Your task to perform on an android device: Set the phone to "Do not disturb". Image 0: 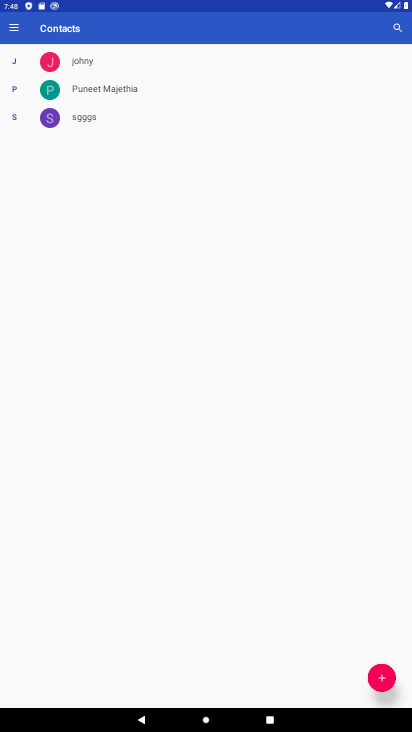
Step 0: press home button
Your task to perform on an android device: Set the phone to "Do not disturb". Image 1: 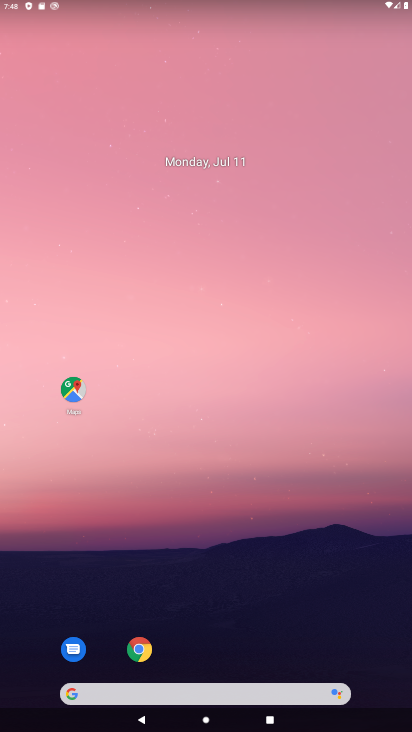
Step 1: drag from (214, 683) to (294, 171)
Your task to perform on an android device: Set the phone to "Do not disturb". Image 2: 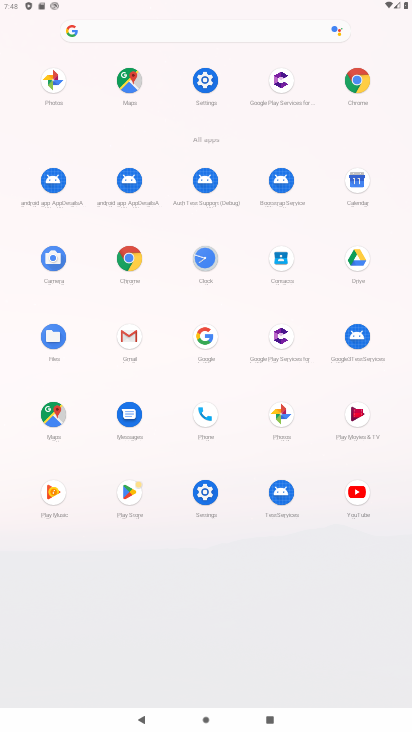
Step 2: click (206, 491)
Your task to perform on an android device: Set the phone to "Do not disturb". Image 3: 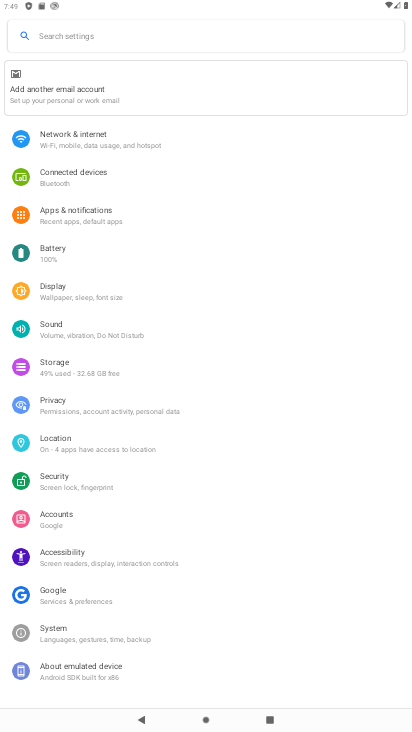
Step 3: click (106, 337)
Your task to perform on an android device: Set the phone to "Do not disturb". Image 4: 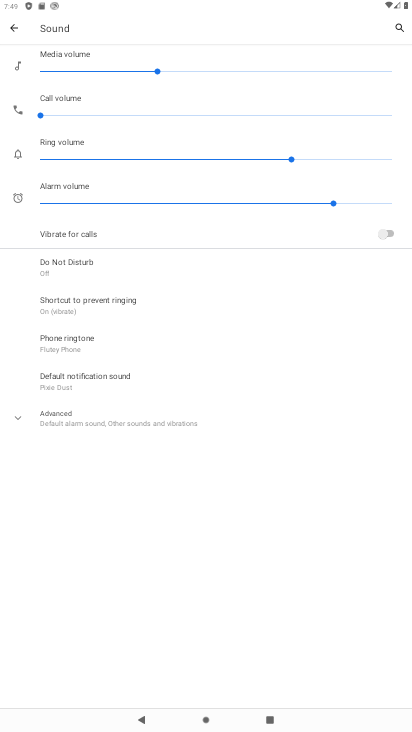
Step 4: click (85, 260)
Your task to perform on an android device: Set the phone to "Do not disturb". Image 5: 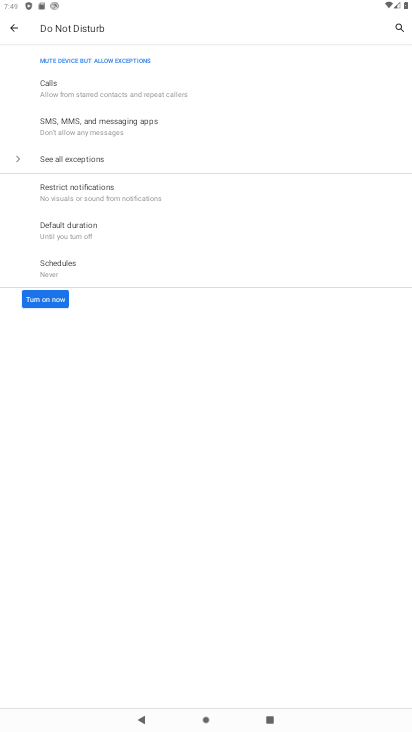
Step 5: click (51, 299)
Your task to perform on an android device: Set the phone to "Do not disturb". Image 6: 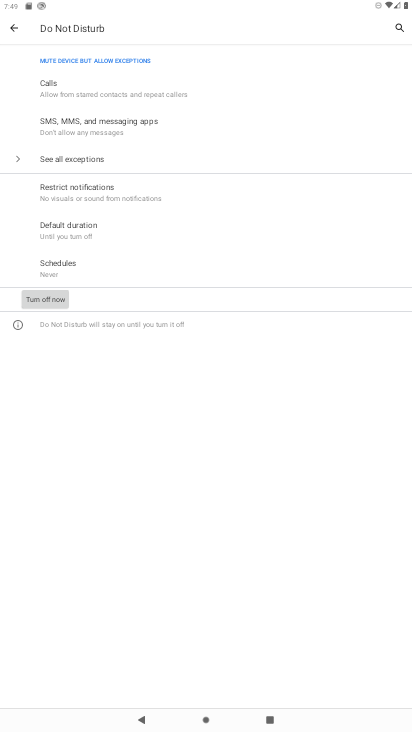
Step 6: task complete